Your task to perform on an android device: open a new tab in the chrome app Image 0: 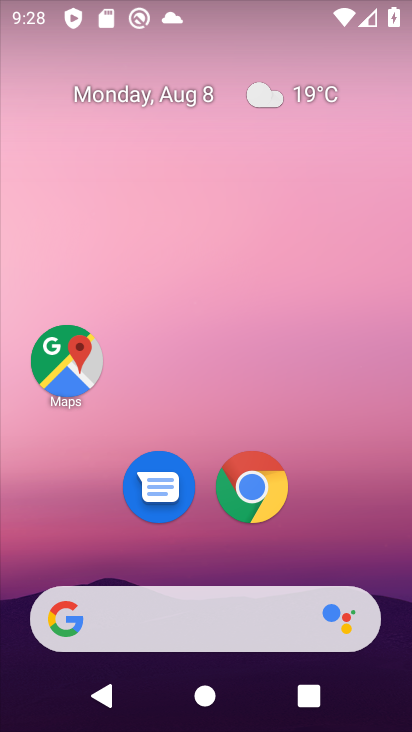
Step 0: click (258, 484)
Your task to perform on an android device: open a new tab in the chrome app Image 1: 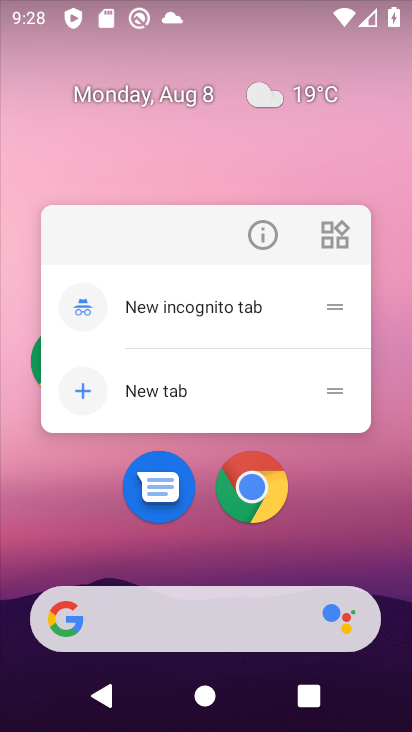
Step 1: click (264, 494)
Your task to perform on an android device: open a new tab in the chrome app Image 2: 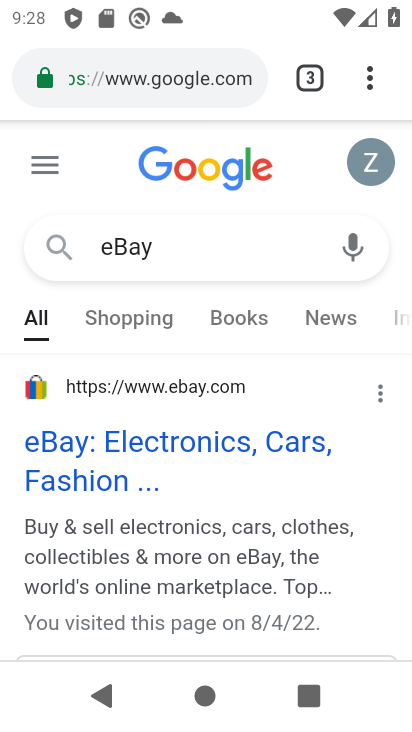
Step 2: task complete